Your task to perform on an android device: open chrome and create a bookmark for the current page Image 0: 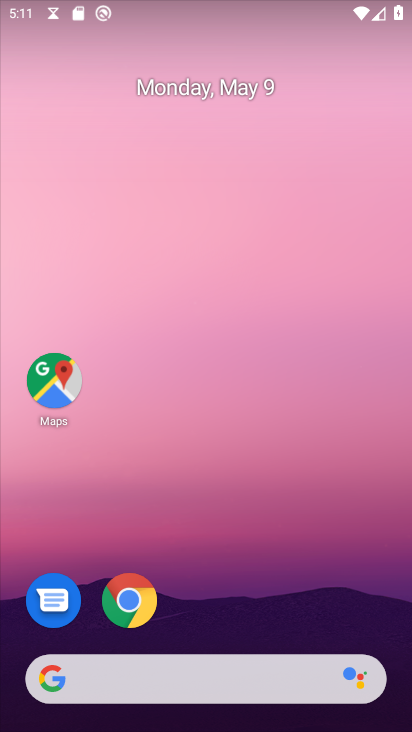
Step 0: drag from (276, 691) to (224, 60)
Your task to perform on an android device: open chrome and create a bookmark for the current page Image 1: 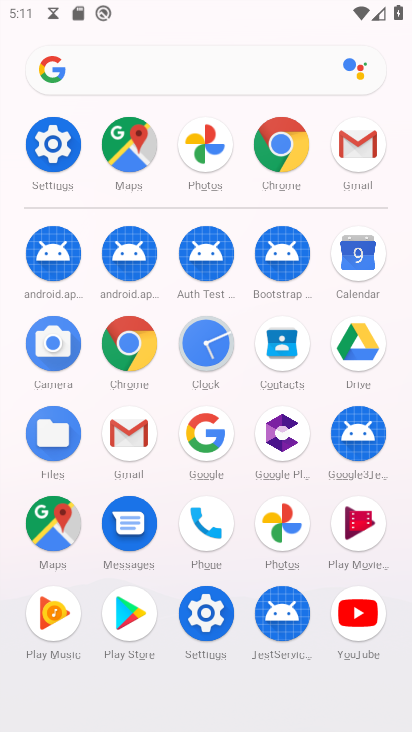
Step 1: click (124, 363)
Your task to perform on an android device: open chrome and create a bookmark for the current page Image 2: 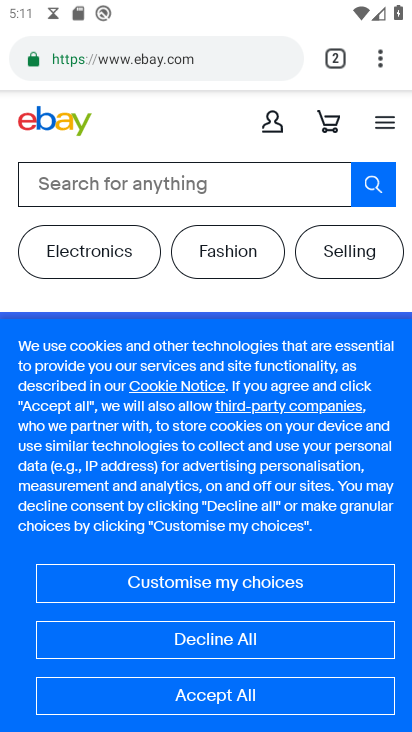
Step 2: task complete